Your task to perform on an android device: Look up the top rated 18v miter saw on Home Depot. Image 0: 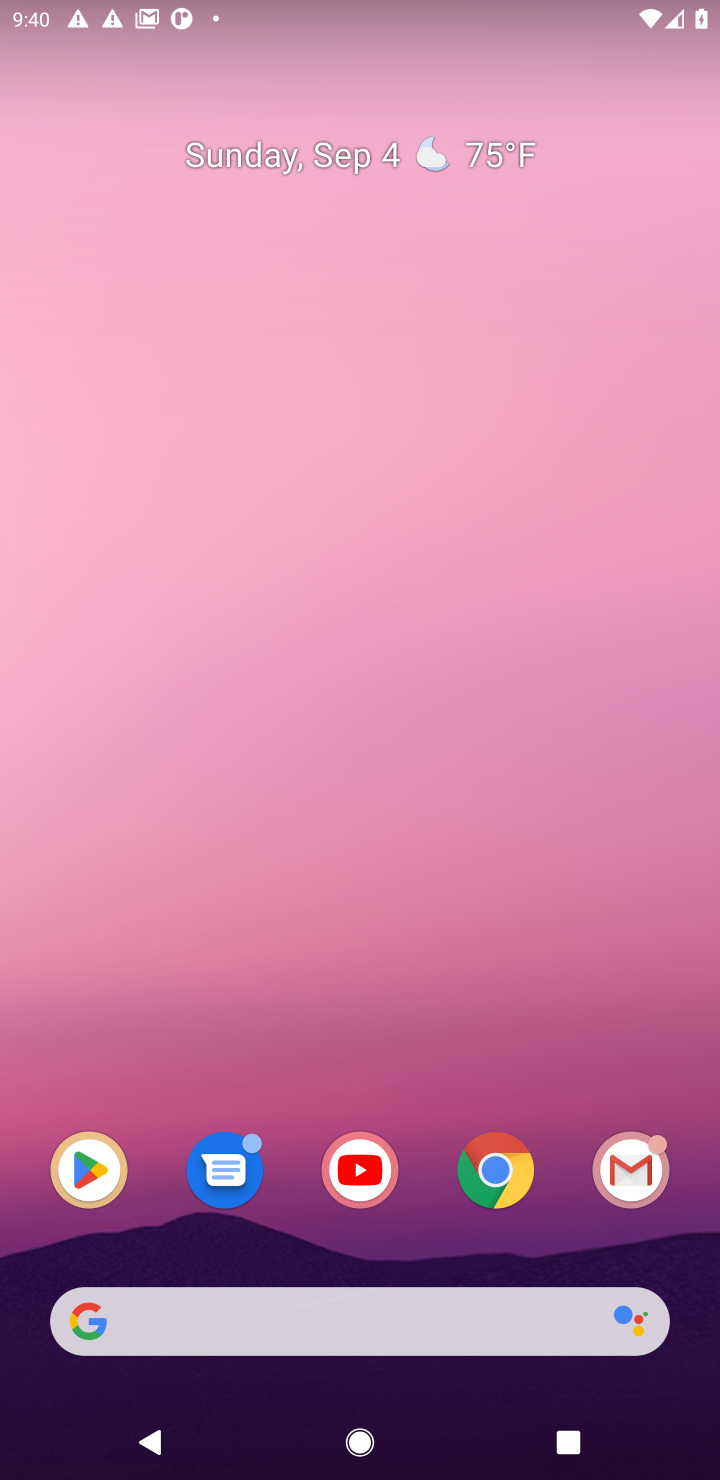
Step 0: click (493, 1176)
Your task to perform on an android device: Look up the top rated 18v miter saw on Home Depot. Image 1: 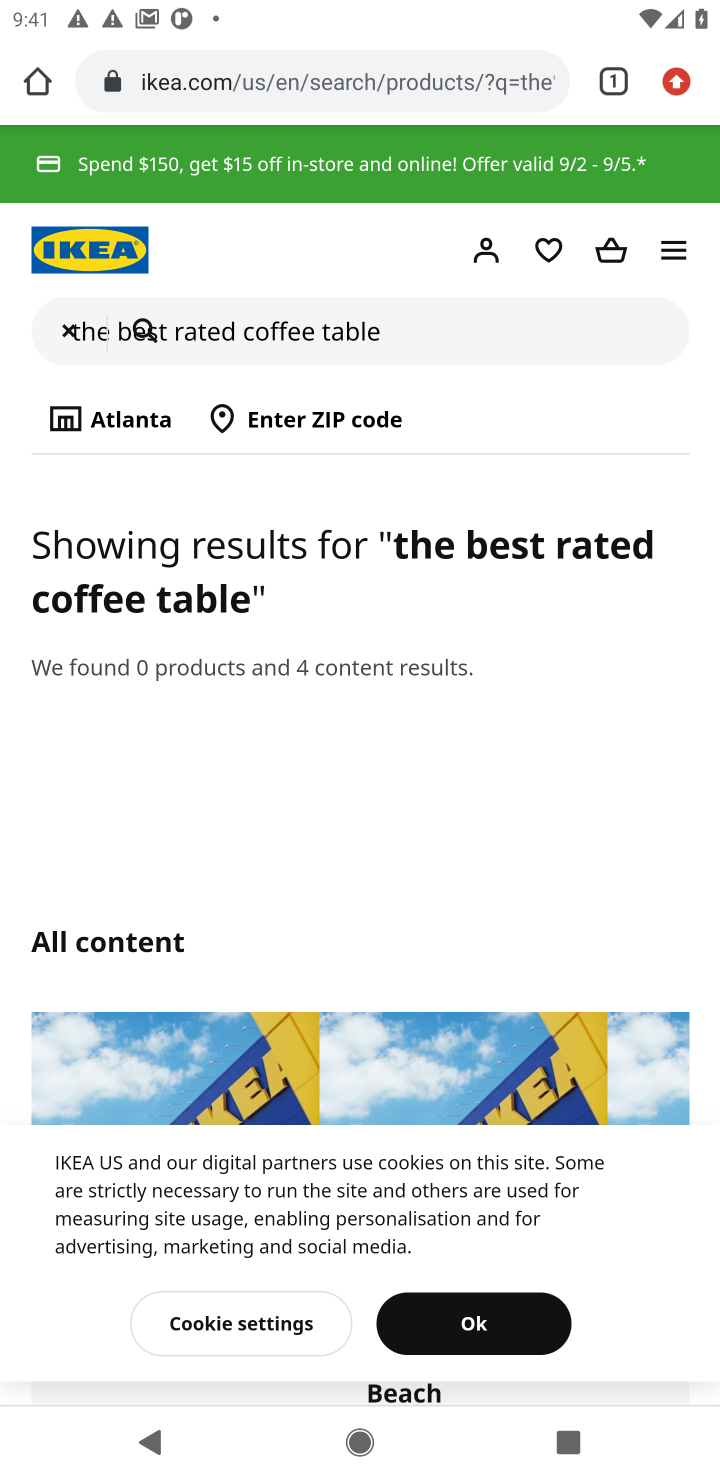
Step 1: click (402, 85)
Your task to perform on an android device: Look up the top rated 18v miter saw on Home Depot. Image 2: 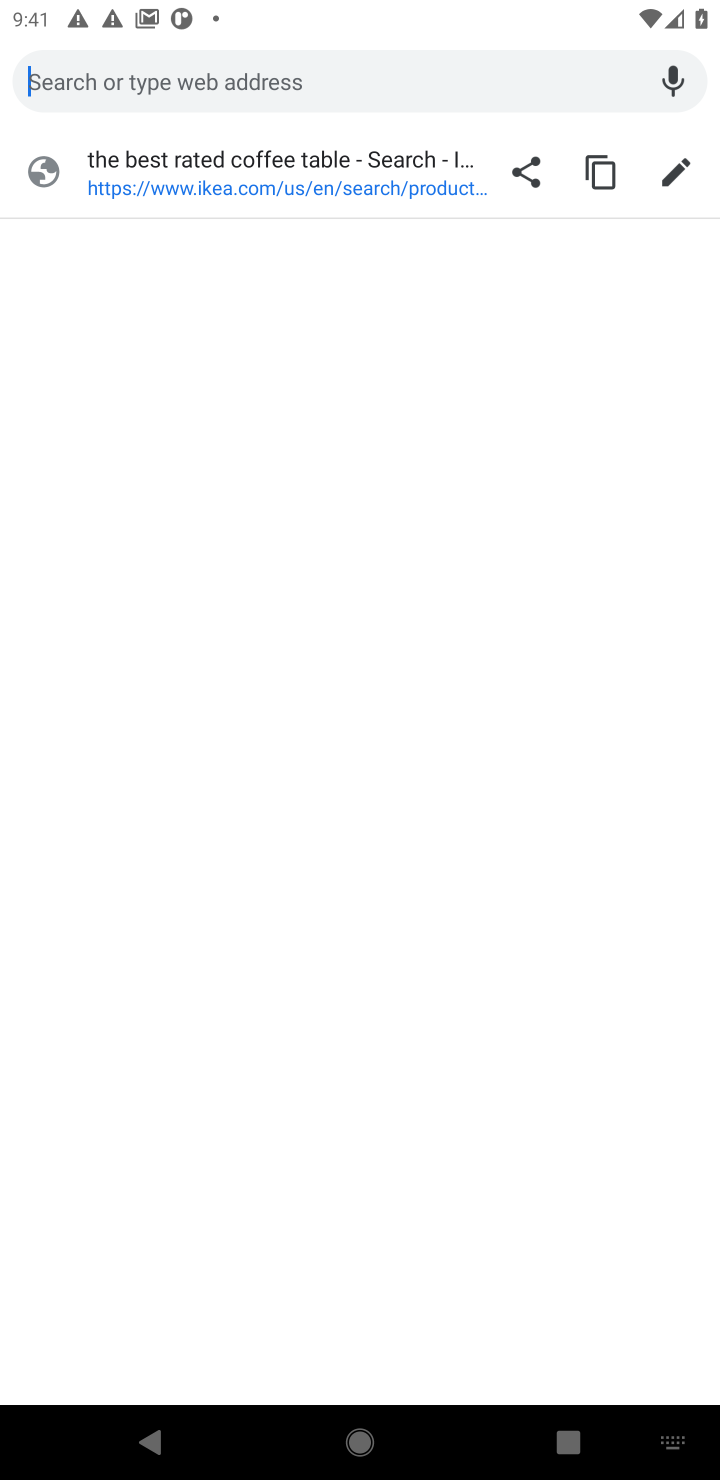
Step 2: type "Homedepot"
Your task to perform on an android device: Look up the top rated 18v miter saw on Home Depot. Image 3: 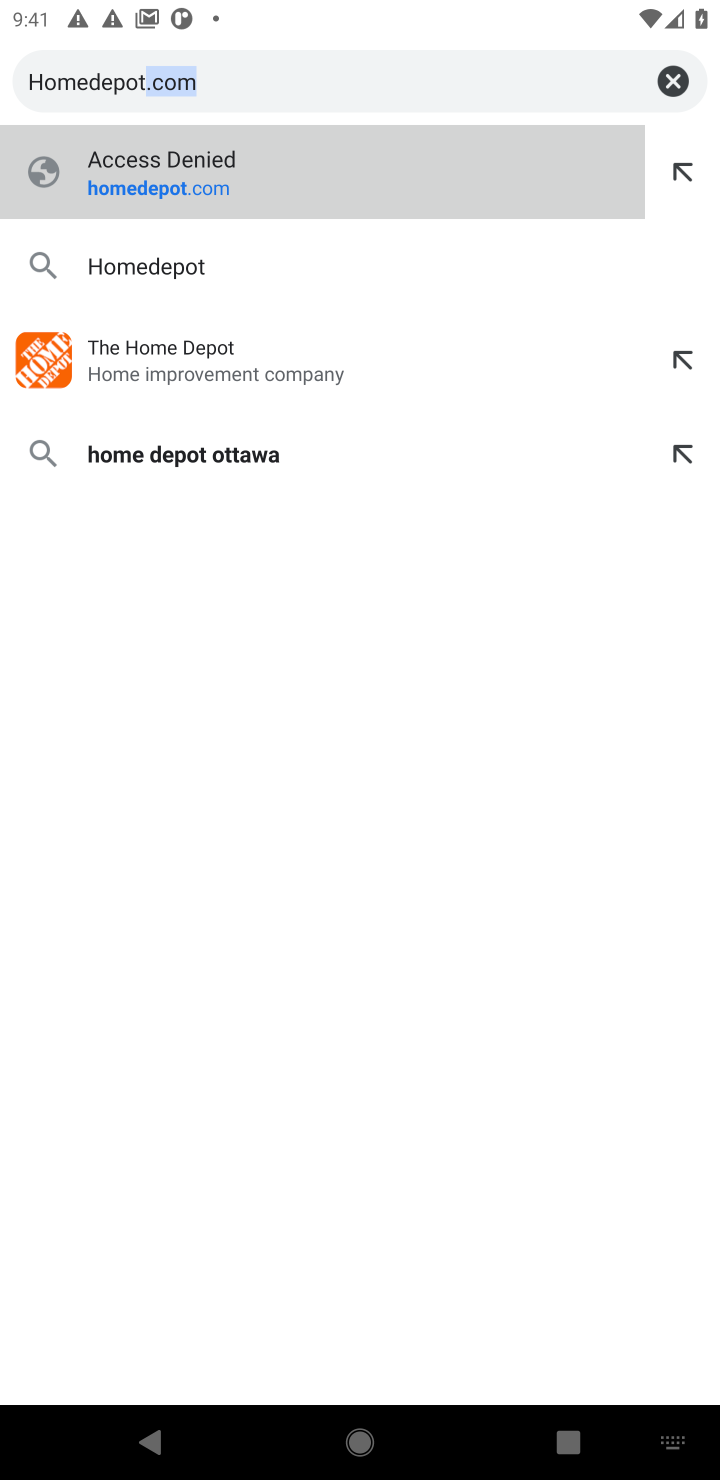
Step 3: click (191, 360)
Your task to perform on an android device: Look up the top rated 18v miter saw on Home Depot. Image 4: 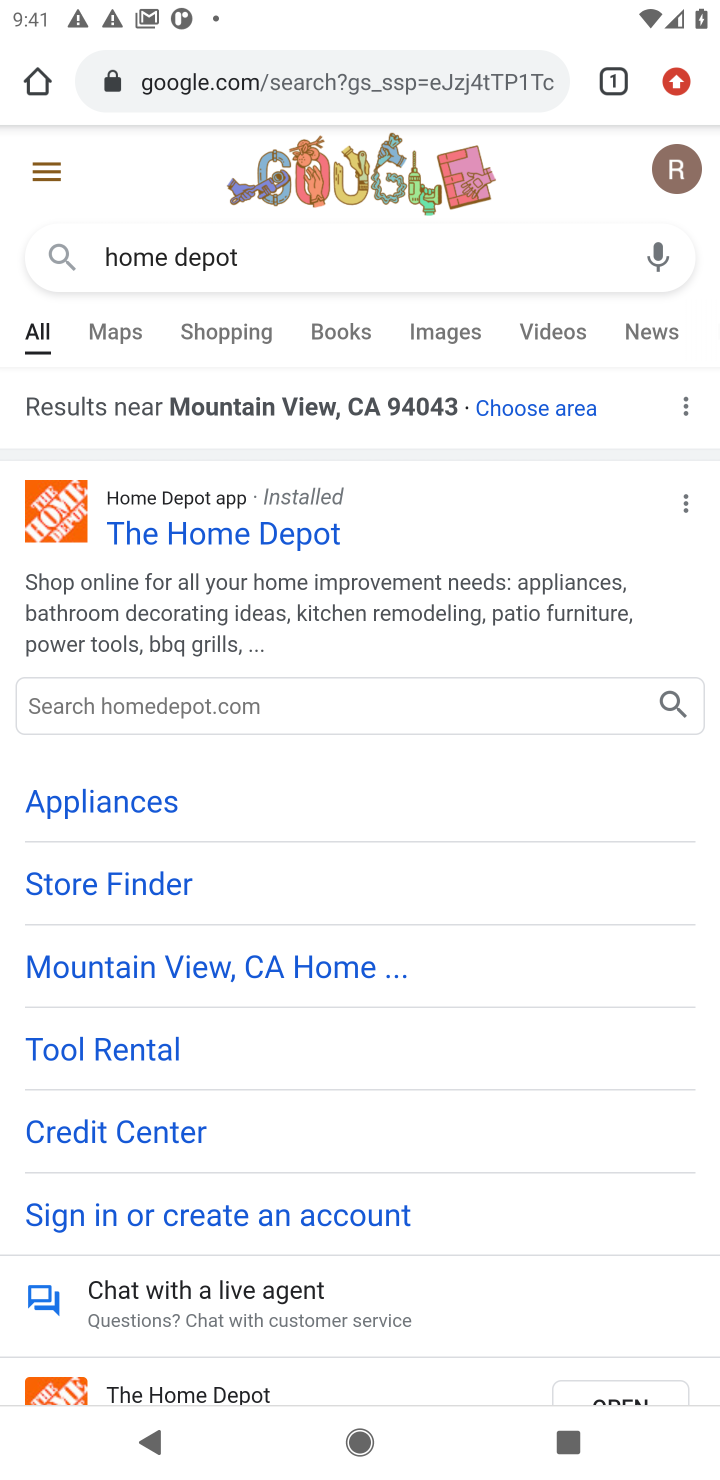
Step 4: click (197, 554)
Your task to perform on an android device: Look up the top rated 18v miter saw on Home Depot. Image 5: 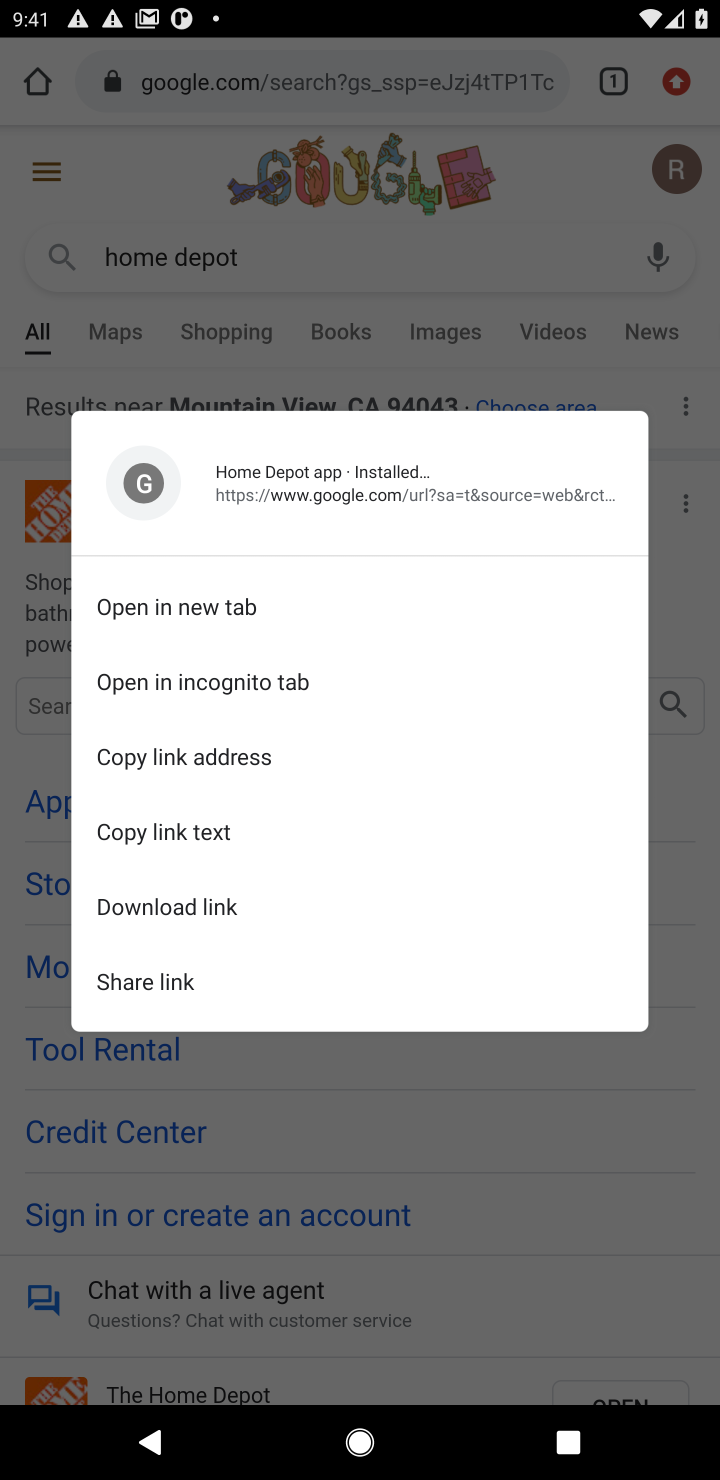
Step 5: click (49, 506)
Your task to perform on an android device: Look up the top rated 18v miter saw on Home Depot. Image 6: 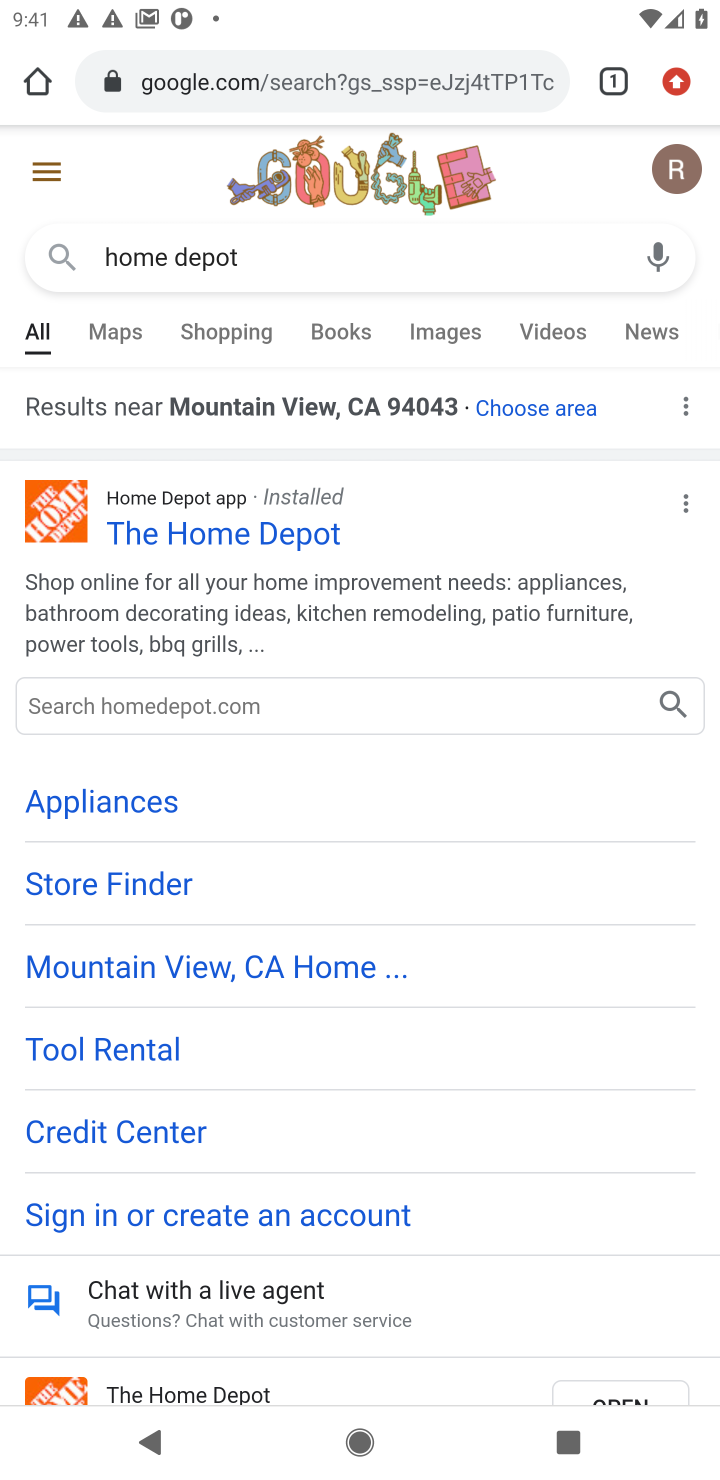
Step 6: click (343, 558)
Your task to perform on an android device: Look up the top rated 18v miter saw on Home Depot. Image 7: 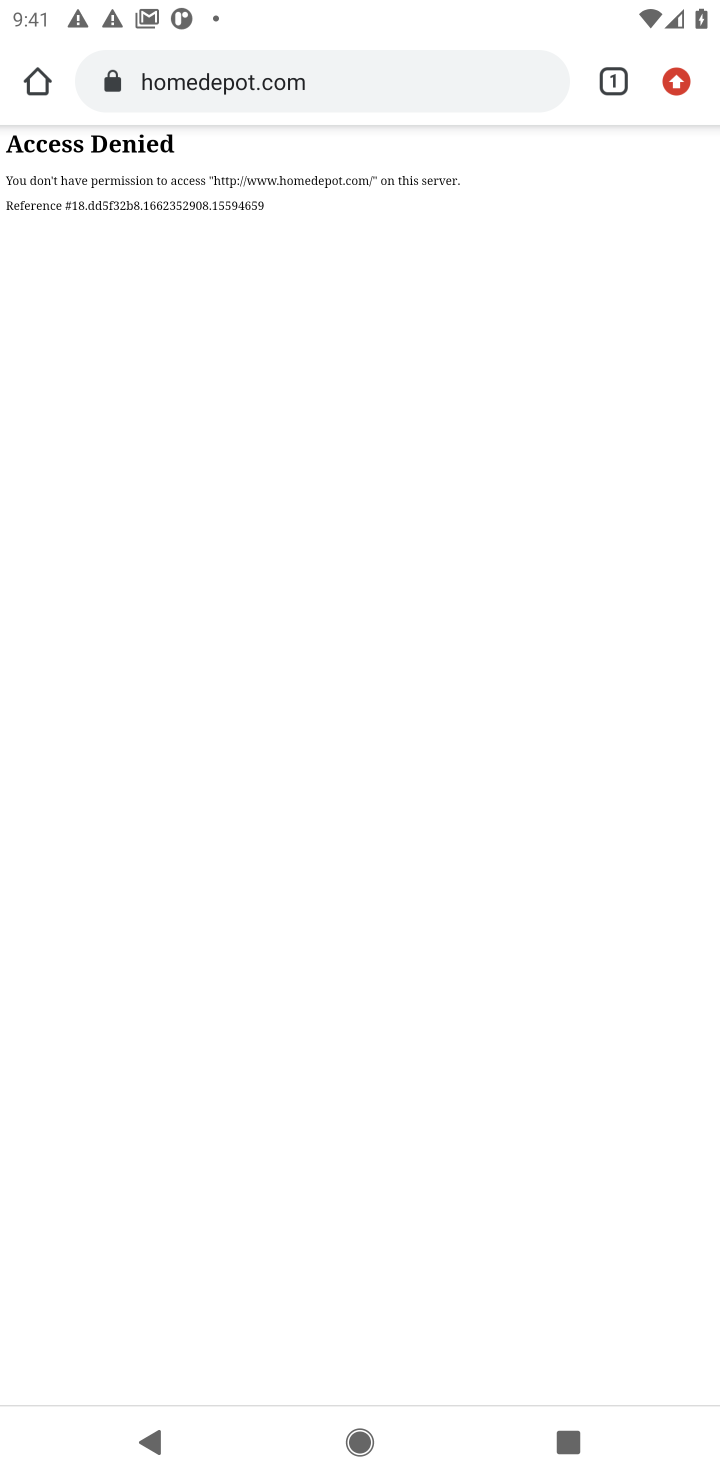
Step 7: task complete